Your task to perform on an android device: clear history in the chrome app Image 0: 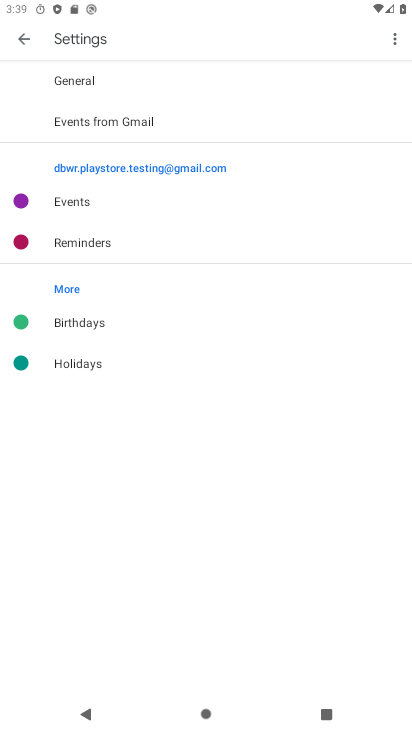
Step 0: press home button
Your task to perform on an android device: clear history in the chrome app Image 1: 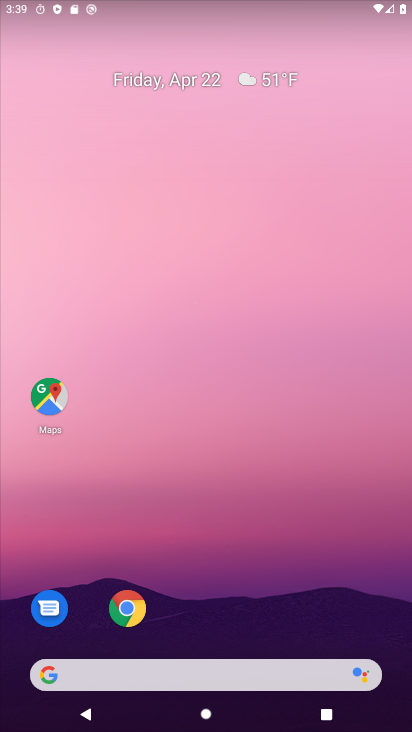
Step 1: click (123, 612)
Your task to perform on an android device: clear history in the chrome app Image 2: 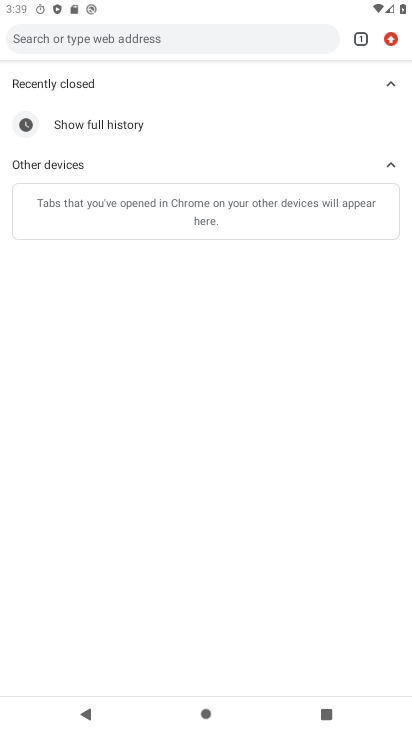
Step 2: click (395, 38)
Your task to perform on an android device: clear history in the chrome app Image 3: 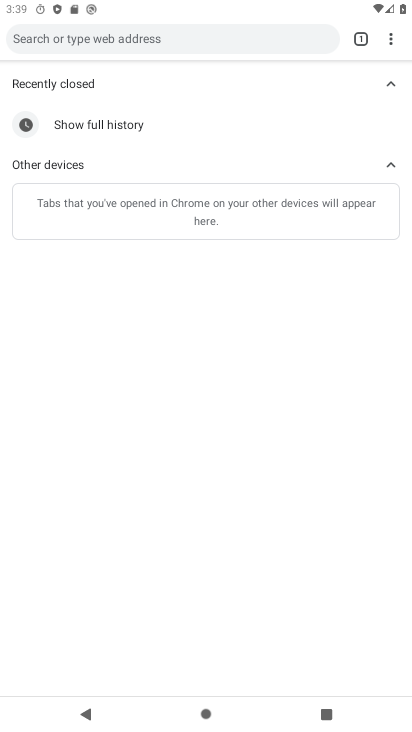
Step 3: click (395, 38)
Your task to perform on an android device: clear history in the chrome app Image 4: 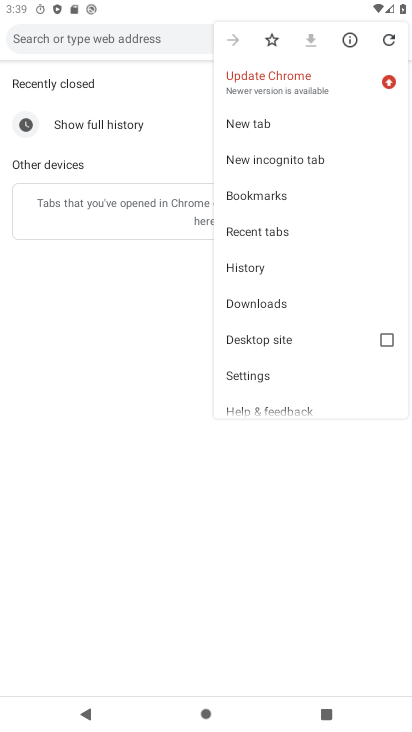
Step 4: click (252, 372)
Your task to perform on an android device: clear history in the chrome app Image 5: 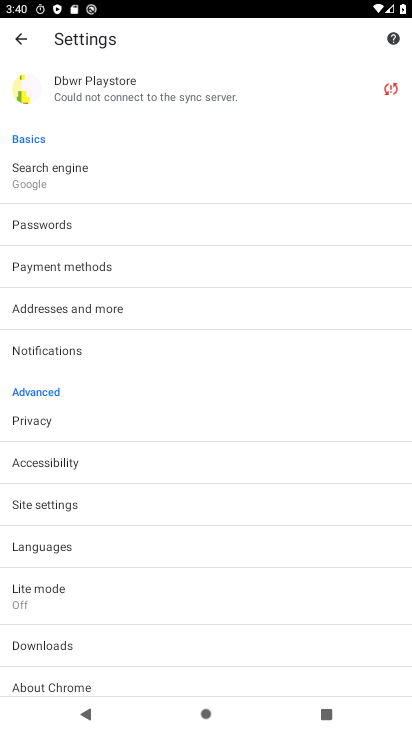
Step 5: click (17, 37)
Your task to perform on an android device: clear history in the chrome app Image 6: 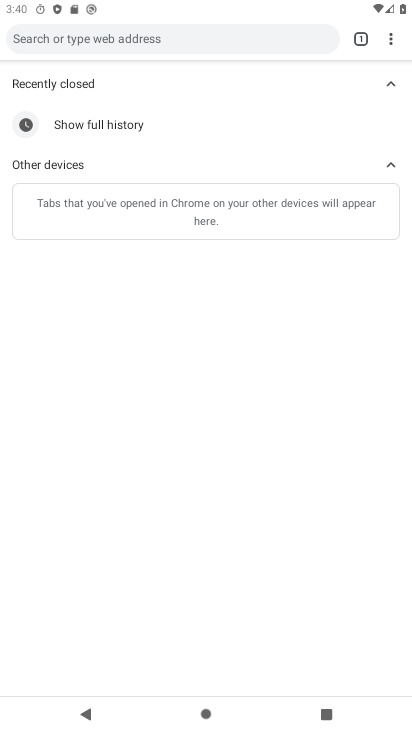
Step 6: click (388, 36)
Your task to perform on an android device: clear history in the chrome app Image 7: 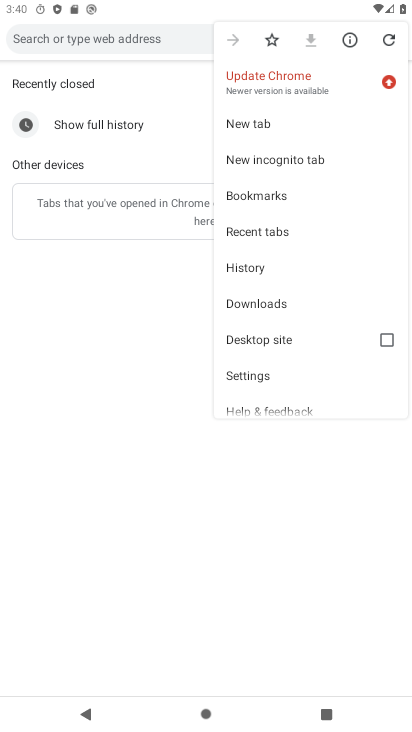
Step 7: click (266, 270)
Your task to perform on an android device: clear history in the chrome app Image 8: 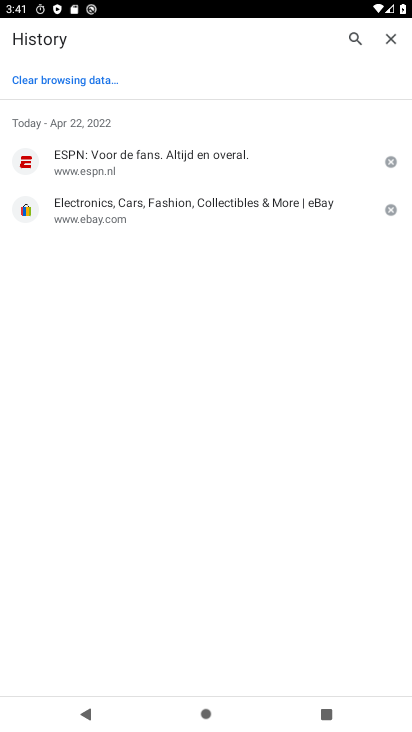
Step 8: click (89, 81)
Your task to perform on an android device: clear history in the chrome app Image 9: 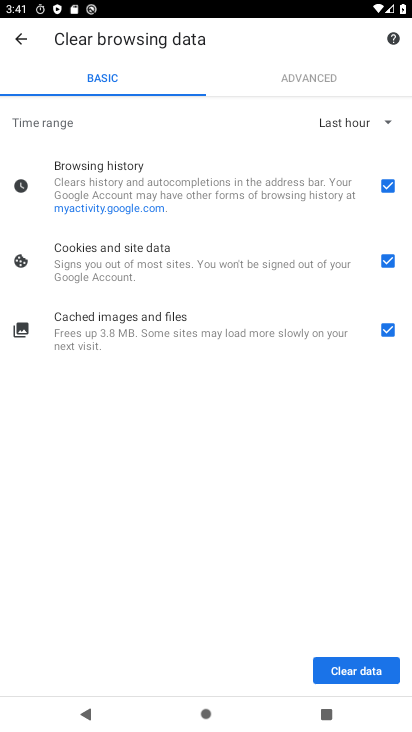
Step 9: click (337, 666)
Your task to perform on an android device: clear history in the chrome app Image 10: 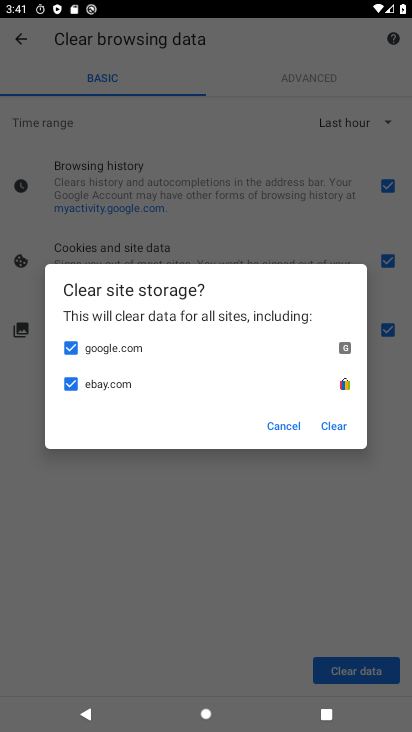
Step 10: click (323, 423)
Your task to perform on an android device: clear history in the chrome app Image 11: 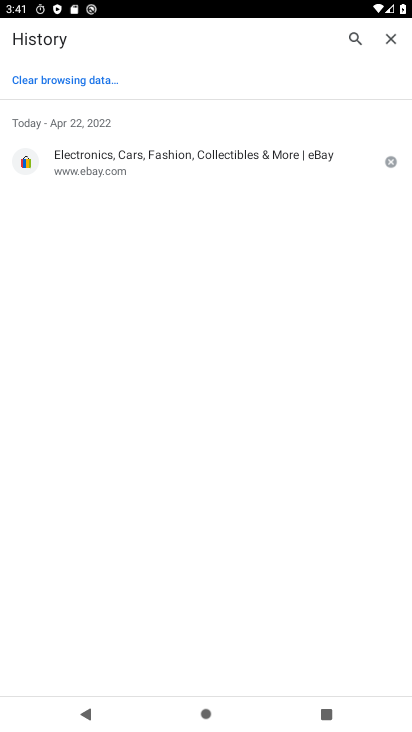
Step 11: task complete